Your task to perform on an android device: Go to Google Image 0: 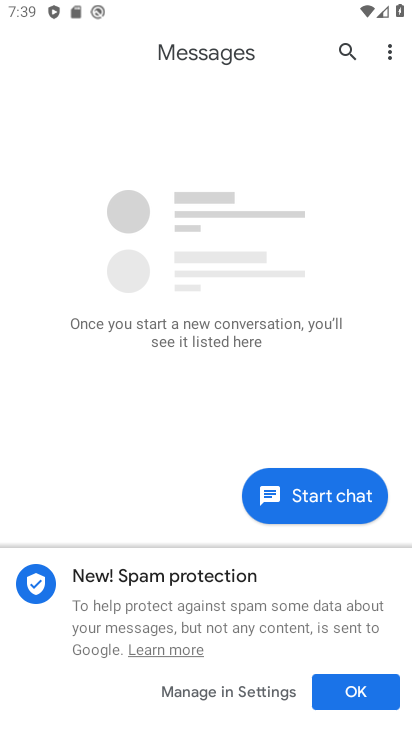
Step 0: press home button
Your task to perform on an android device: Go to Google Image 1: 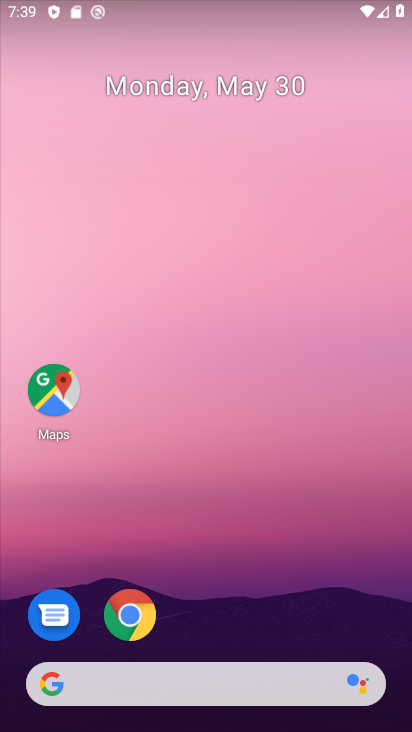
Step 1: drag from (120, 728) to (143, 61)
Your task to perform on an android device: Go to Google Image 2: 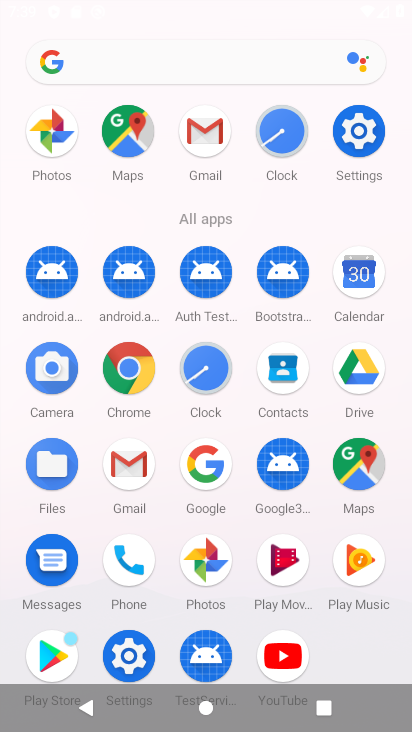
Step 2: click (195, 465)
Your task to perform on an android device: Go to Google Image 3: 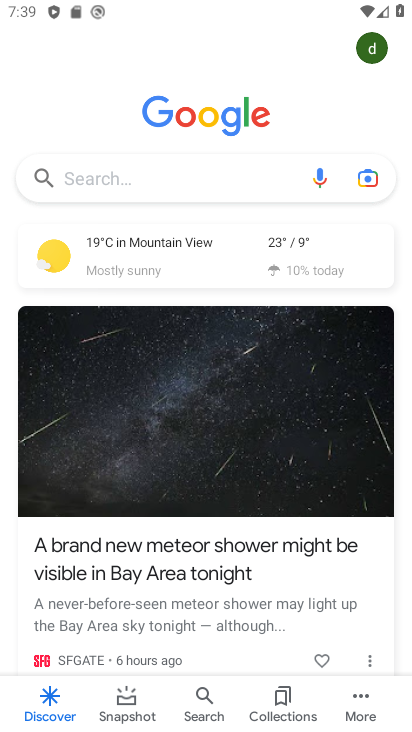
Step 3: task complete